Your task to perform on an android device: see tabs open on other devices in the chrome app Image 0: 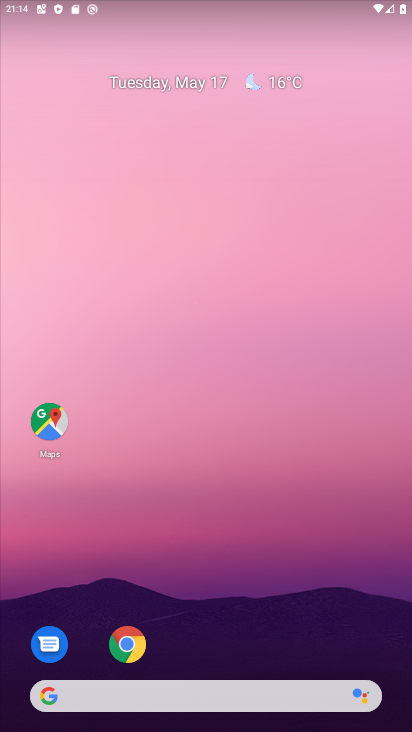
Step 0: click (133, 636)
Your task to perform on an android device: see tabs open on other devices in the chrome app Image 1: 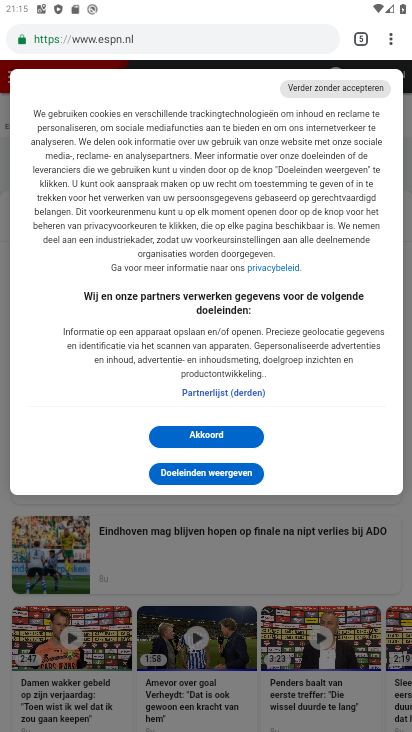
Step 1: task complete